Your task to perform on an android device: Open calendar and show me the third week of next month Image 0: 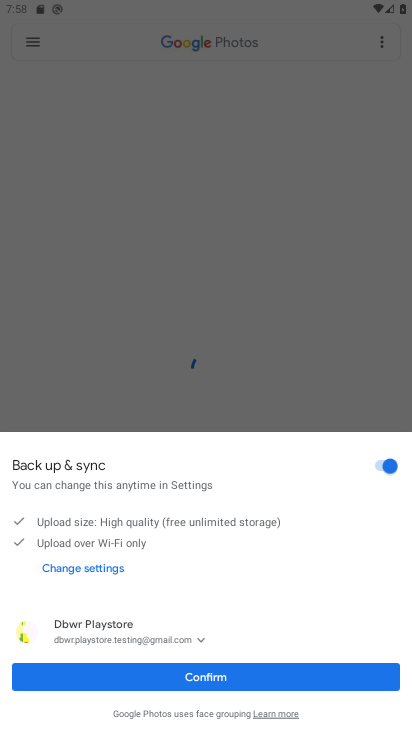
Step 0: press home button
Your task to perform on an android device: Open calendar and show me the third week of next month Image 1: 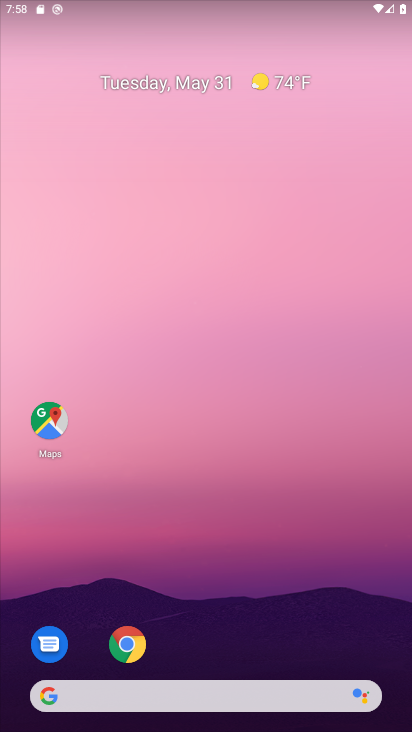
Step 1: drag from (213, 650) to (255, 105)
Your task to perform on an android device: Open calendar and show me the third week of next month Image 2: 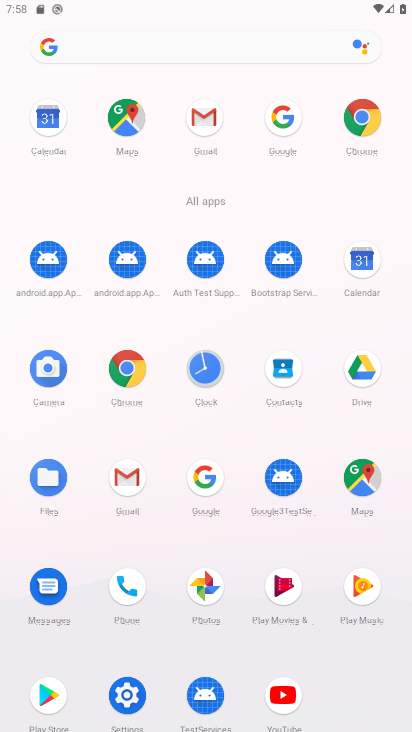
Step 2: click (359, 260)
Your task to perform on an android device: Open calendar and show me the third week of next month Image 3: 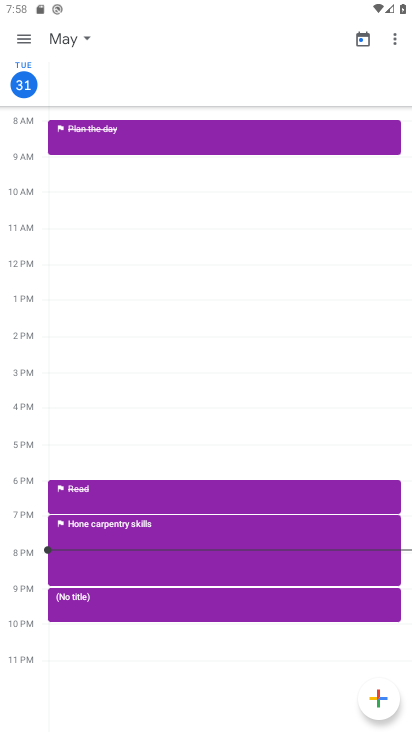
Step 3: click (83, 34)
Your task to perform on an android device: Open calendar and show me the third week of next month Image 4: 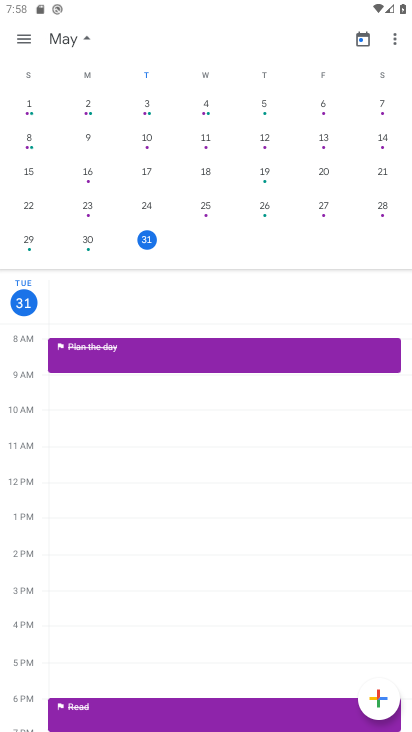
Step 4: drag from (341, 159) to (36, 159)
Your task to perform on an android device: Open calendar and show me the third week of next month Image 5: 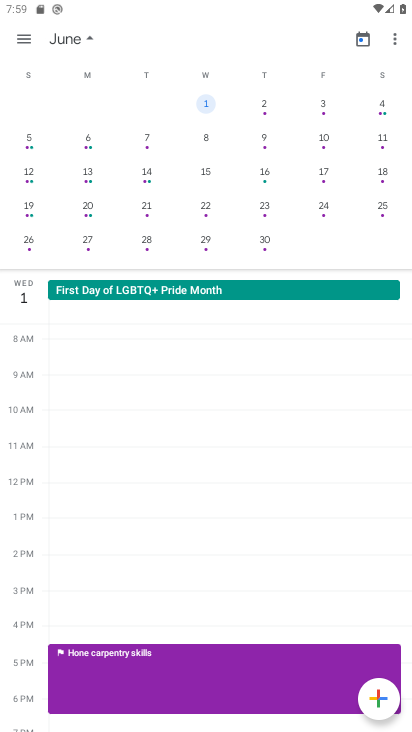
Step 5: click (27, 171)
Your task to perform on an android device: Open calendar and show me the third week of next month Image 6: 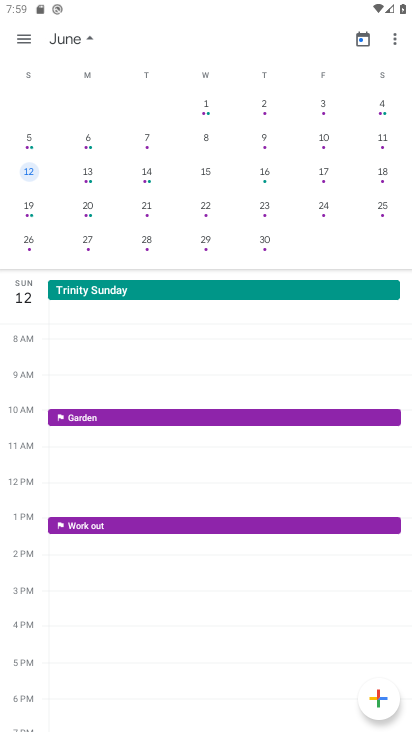
Step 6: click (91, 42)
Your task to perform on an android device: Open calendar and show me the third week of next month Image 7: 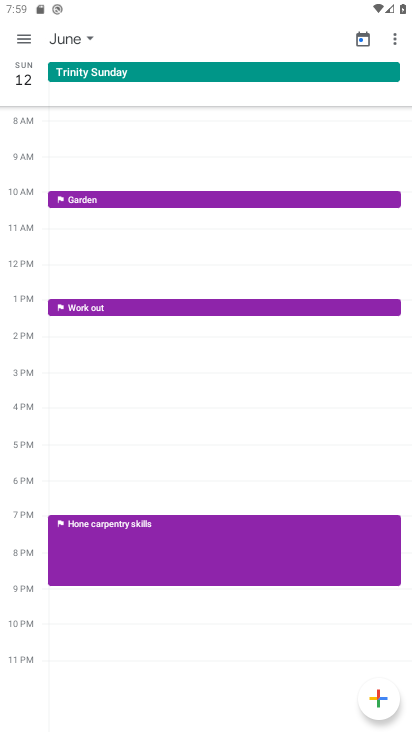
Step 7: click (30, 77)
Your task to perform on an android device: Open calendar and show me the third week of next month Image 8: 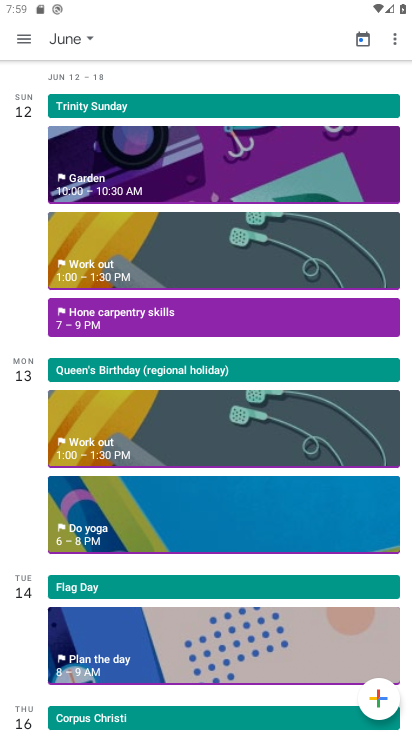
Step 8: task complete